Your task to perform on an android device: find snoozed emails in the gmail app Image 0: 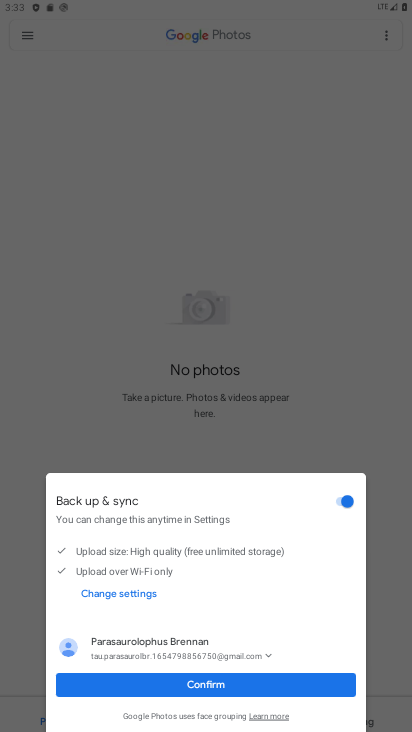
Step 0: press home button
Your task to perform on an android device: find snoozed emails in the gmail app Image 1: 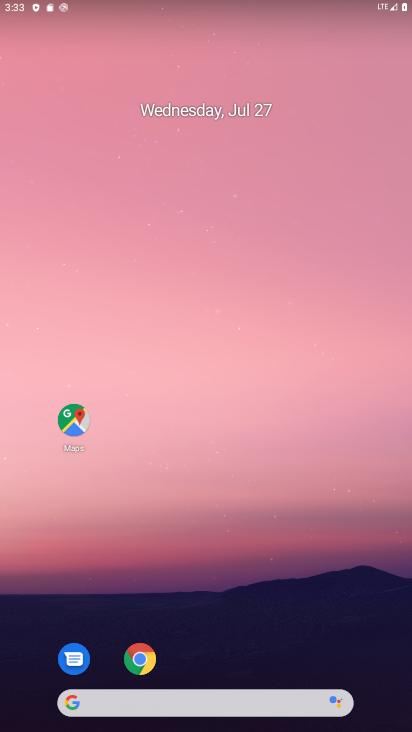
Step 1: drag from (234, 664) to (253, 115)
Your task to perform on an android device: find snoozed emails in the gmail app Image 2: 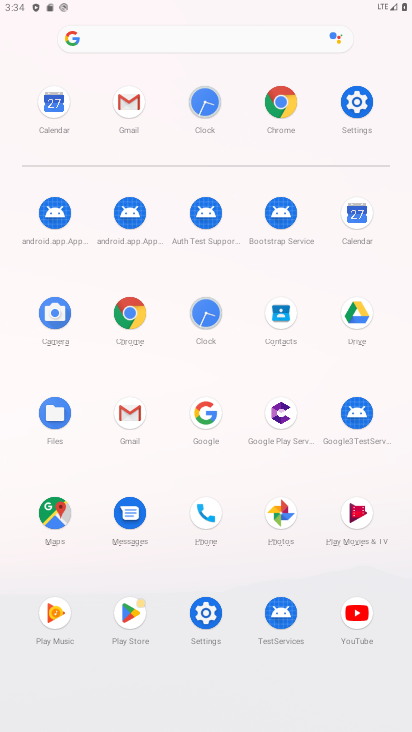
Step 2: click (141, 115)
Your task to perform on an android device: find snoozed emails in the gmail app Image 3: 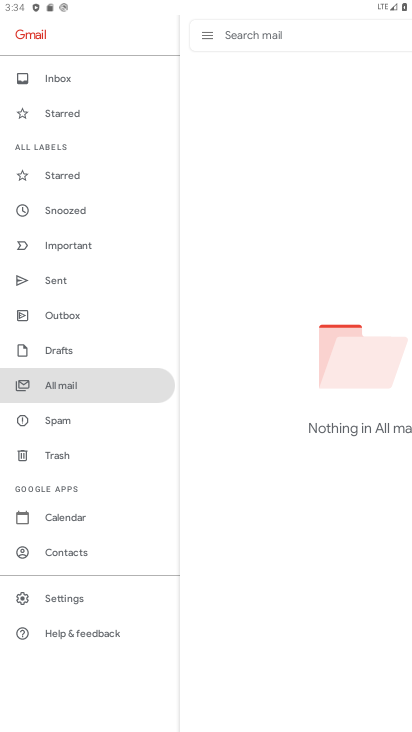
Step 3: click (67, 208)
Your task to perform on an android device: find snoozed emails in the gmail app Image 4: 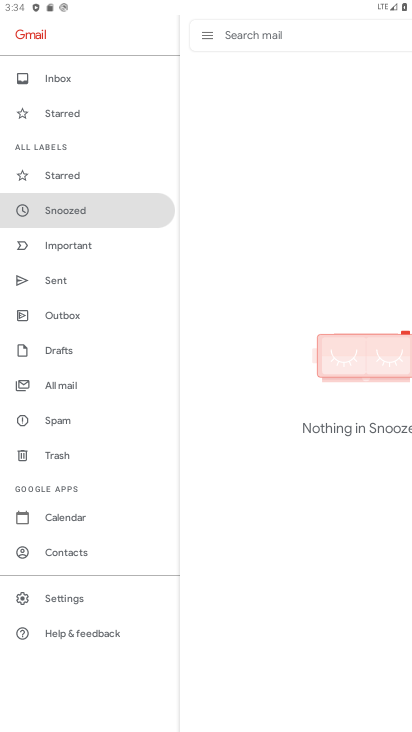
Step 4: task complete